Your task to perform on an android device: Open sound settings Image 0: 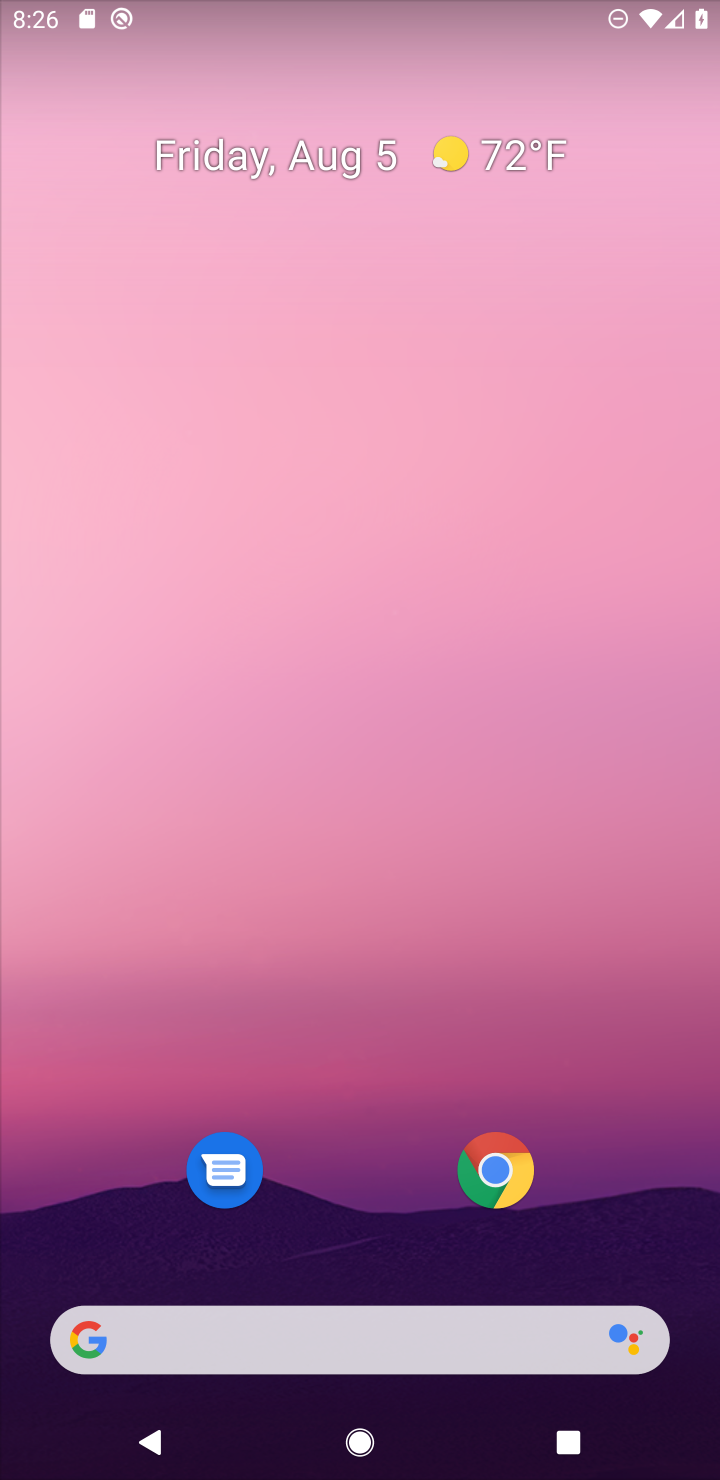
Step 0: drag from (676, 1239) to (657, 339)
Your task to perform on an android device: Open sound settings Image 1: 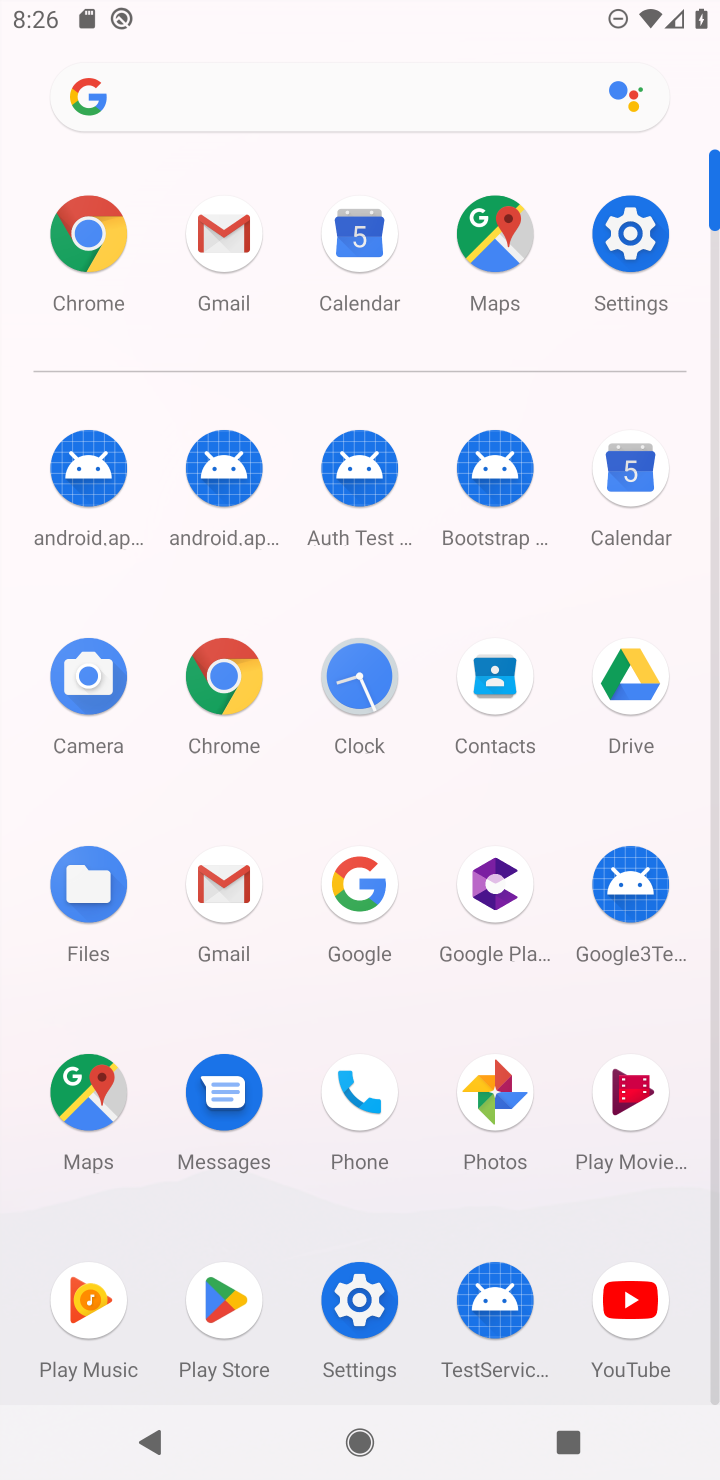
Step 1: click (359, 1294)
Your task to perform on an android device: Open sound settings Image 2: 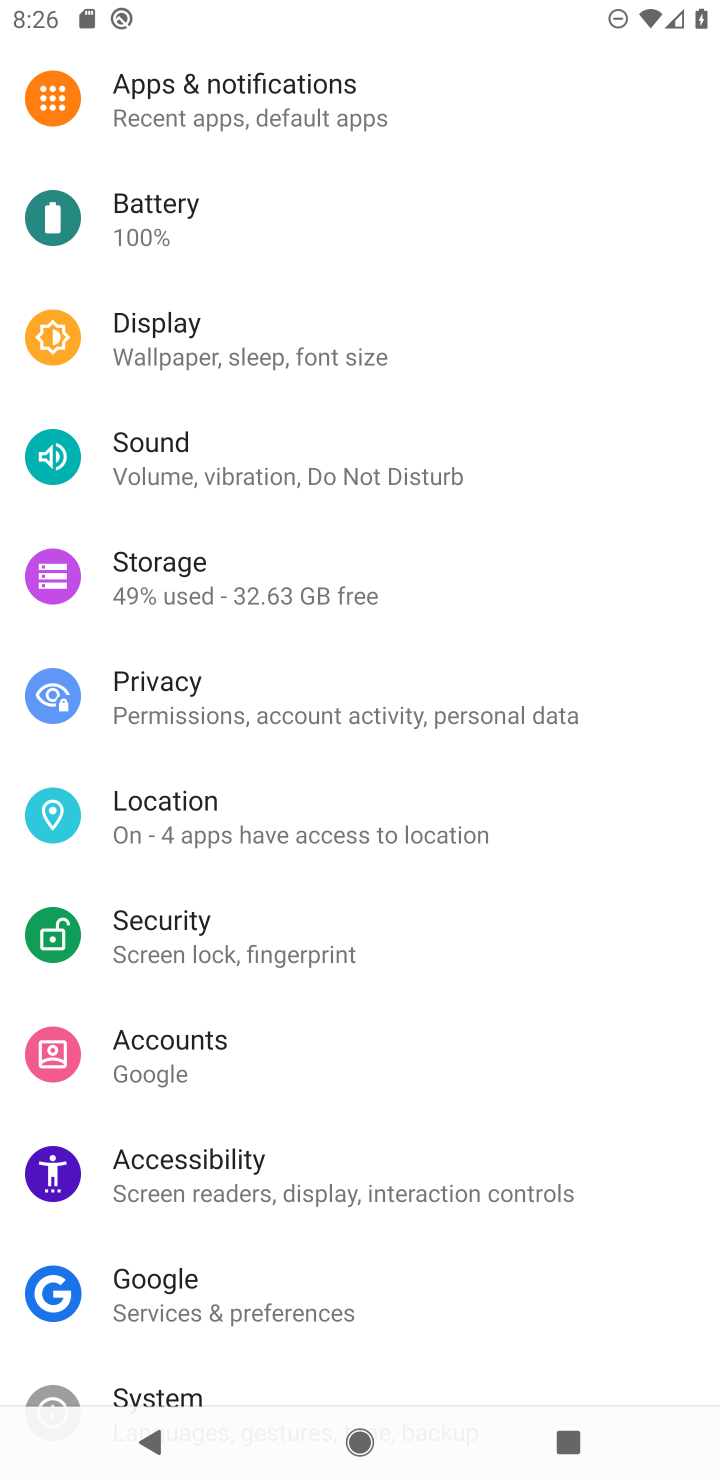
Step 2: click (153, 428)
Your task to perform on an android device: Open sound settings Image 3: 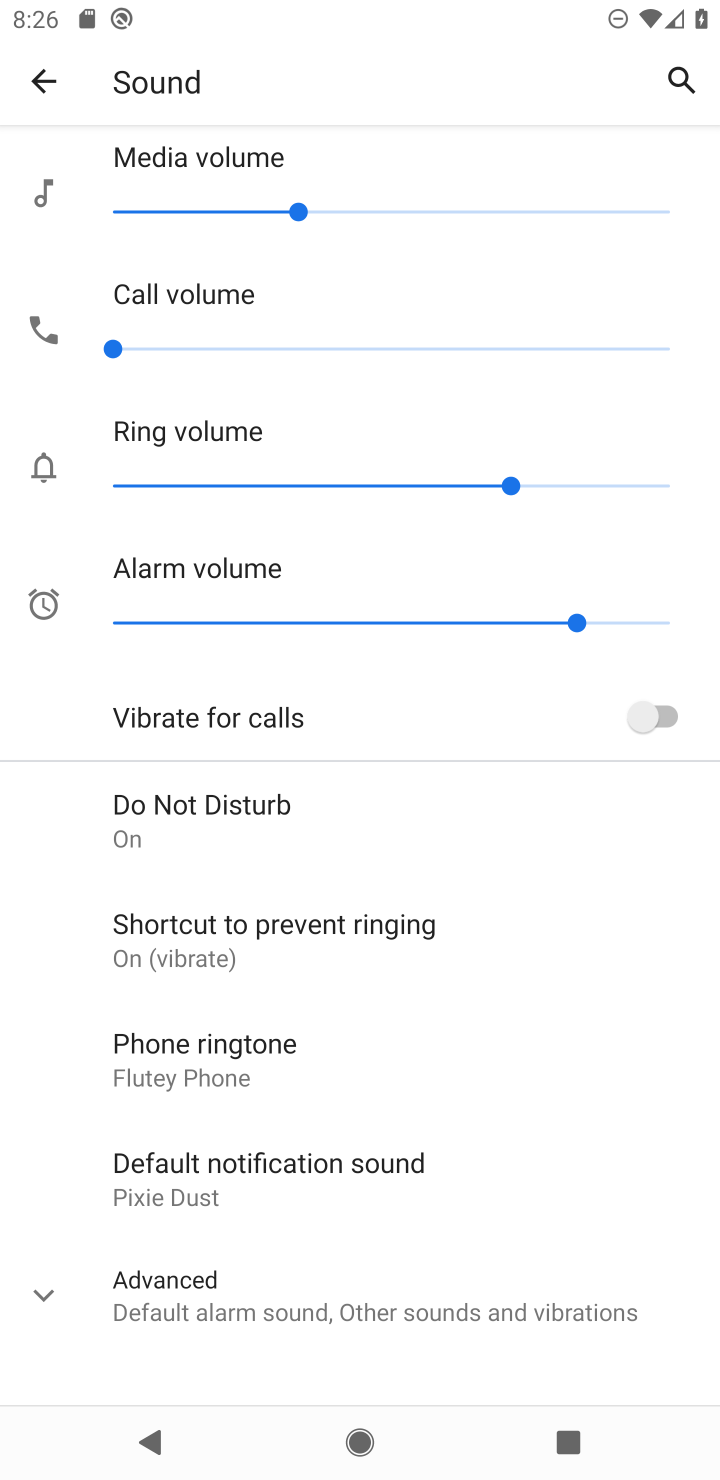
Step 3: drag from (516, 1226) to (532, 572)
Your task to perform on an android device: Open sound settings Image 4: 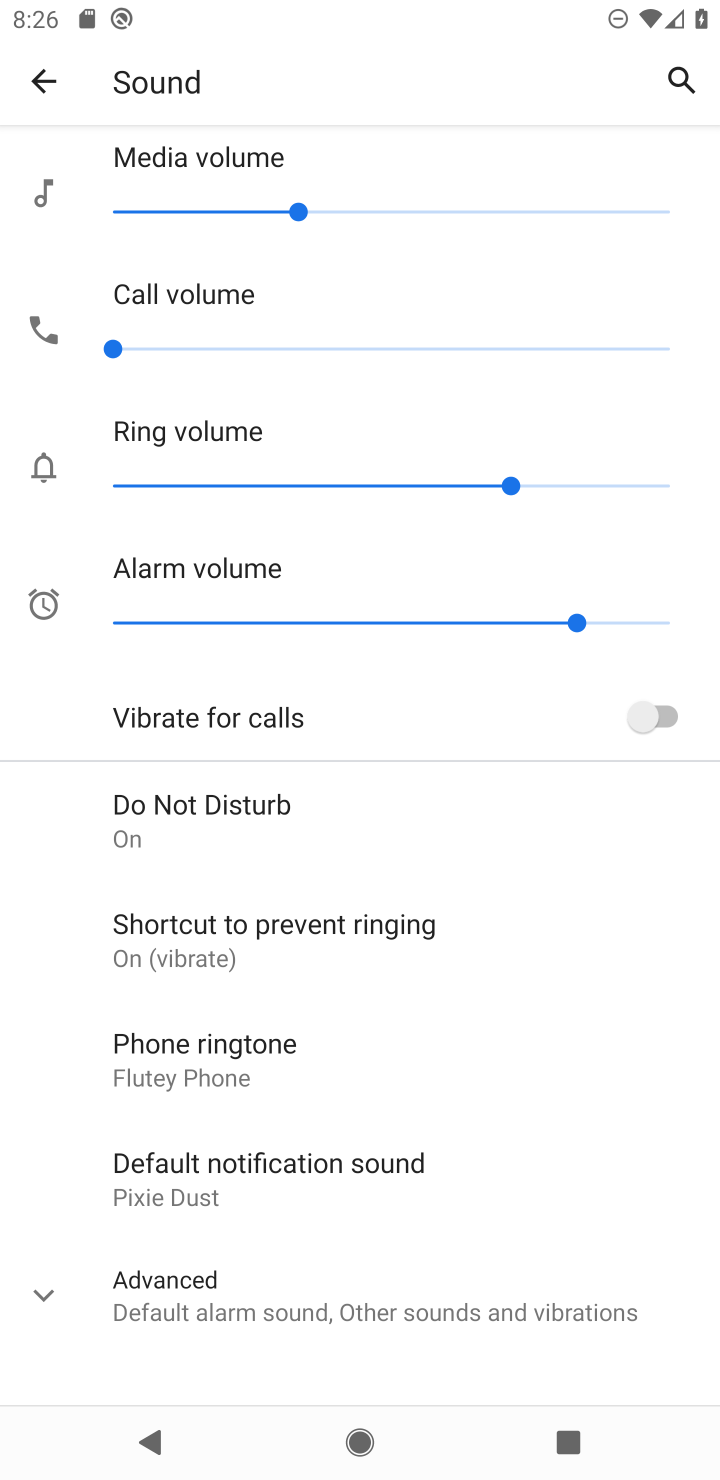
Step 4: click (35, 1290)
Your task to perform on an android device: Open sound settings Image 5: 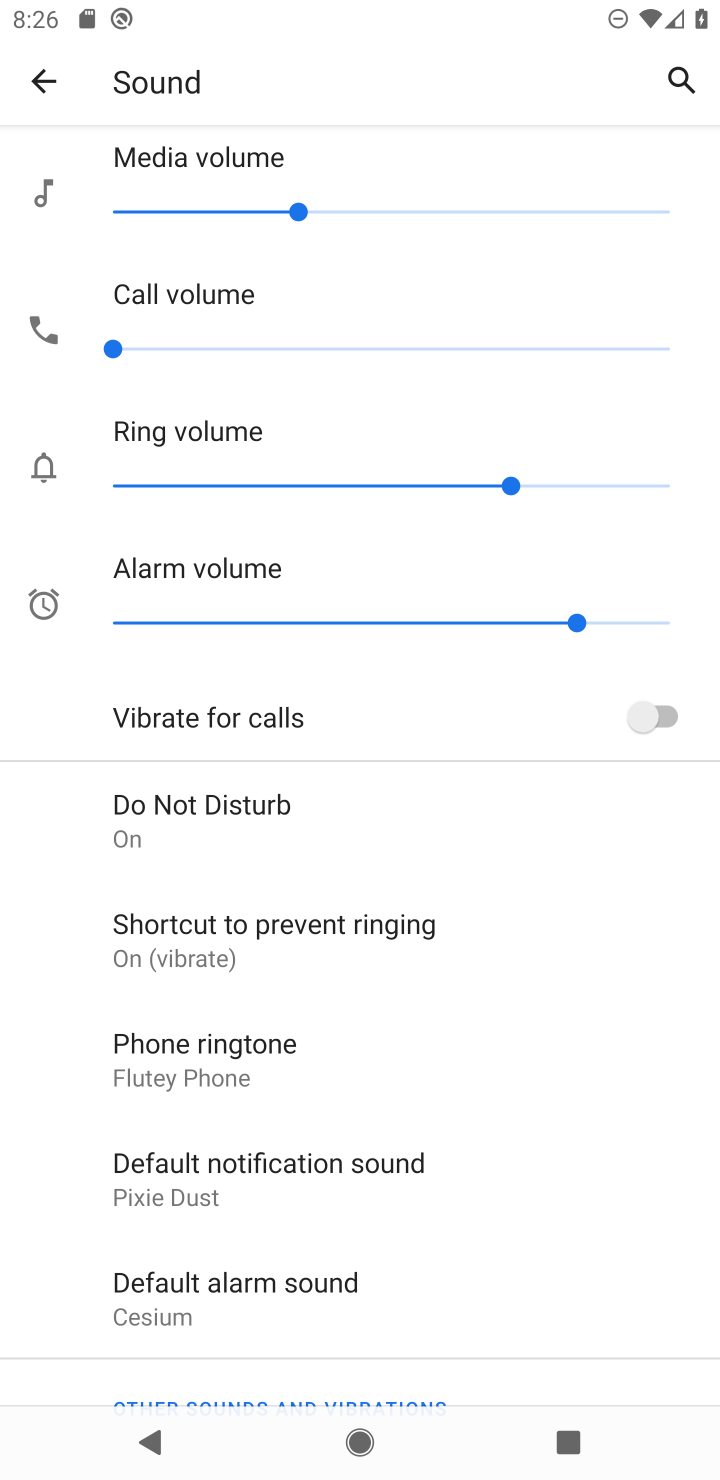
Step 5: task complete